Your task to perform on an android device: see tabs open on other devices in the chrome app Image 0: 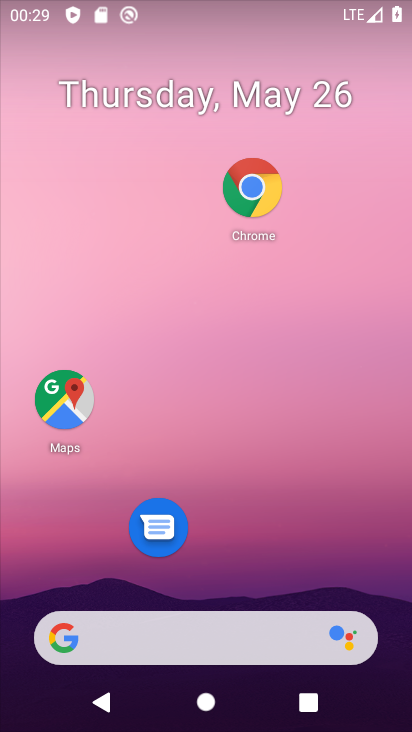
Step 0: click (274, 197)
Your task to perform on an android device: see tabs open on other devices in the chrome app Image 1: 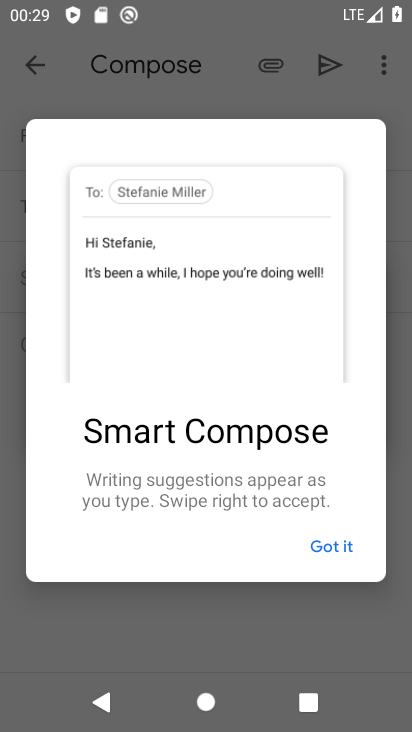
Step 1: click (315, 559)
Your task to perform on an android device: see tabs open on other devices in the chrome app Image 2: 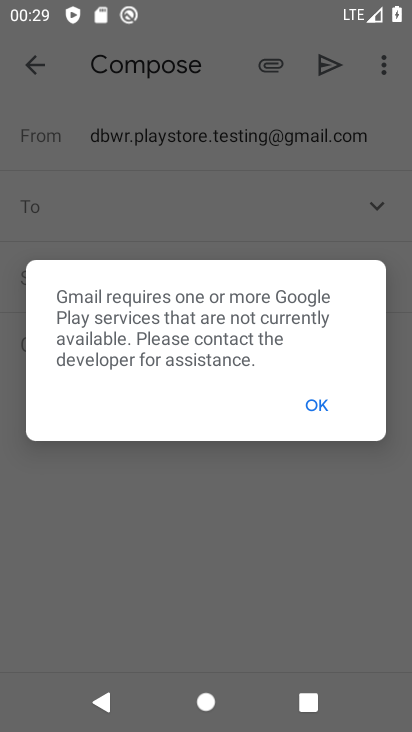
Step 2: click (329, 543)
Your task to perform on an android device: see tabs open on other devices in the chrome app Image 3: 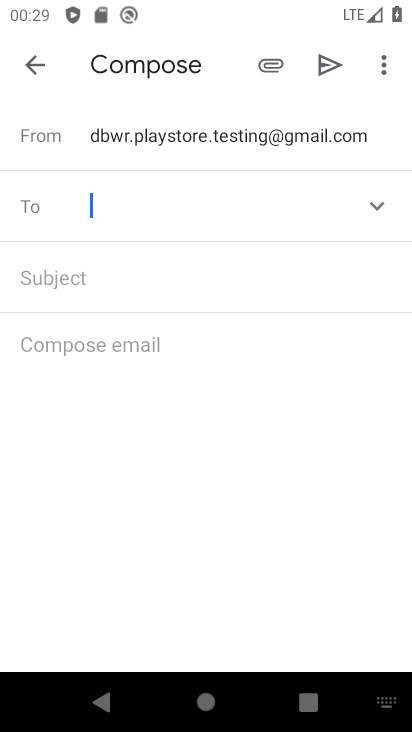
Step 3: press home button
Your task to perform on an android device: see tabs open on other devices in the chrome app Image 4: 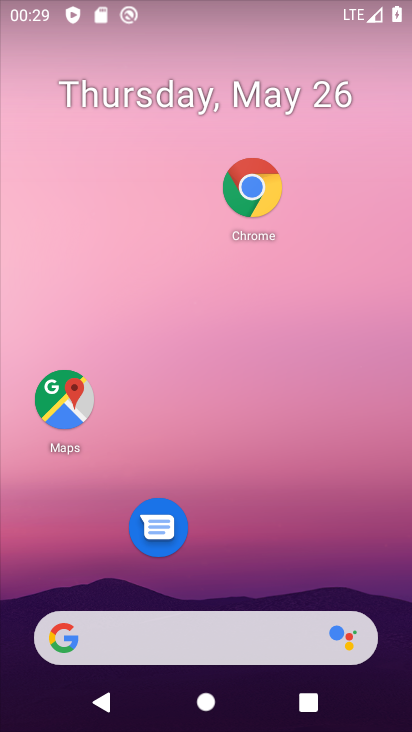
Step 4: click (258, 185)
Your task to perform on an android device: see tabs open on other devices in the chrome app Image 5: 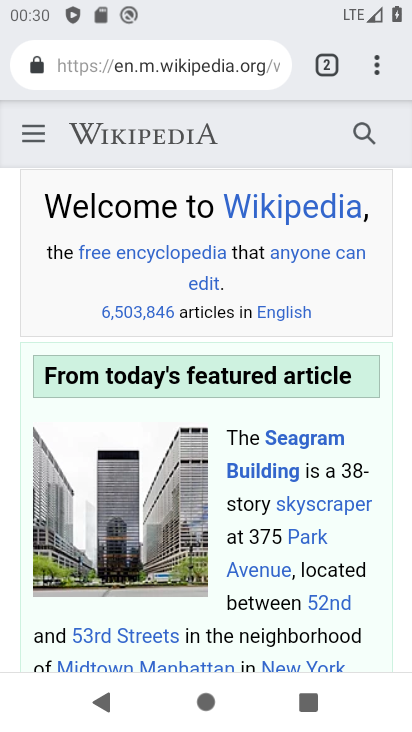
Step 5: click (379, 71)
Your task to perform on an android device: see tabs open on other devices in the chrome app Image 6: 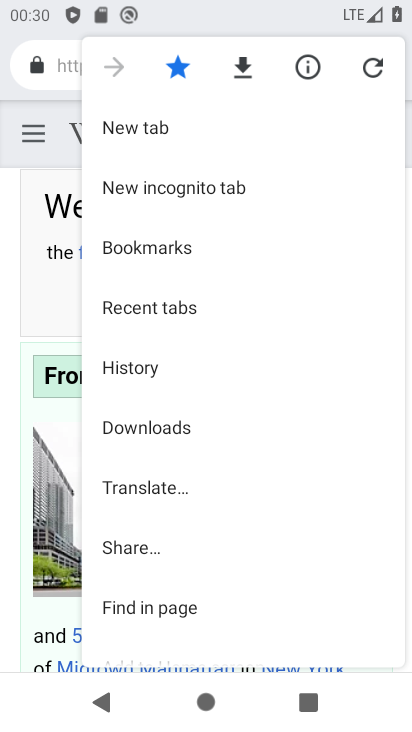
Step 6: click (170, 142)
Your task to perform on an android device: see tabs open on other devices in the chrome app Image 7: 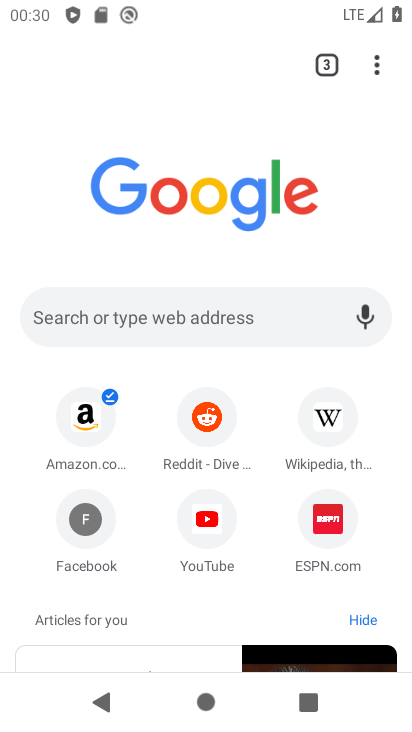
Step 7: drag from (224, 531) to (269, 259)
Your task to perform on an android device: see tabs open on other devices in the chrome app Image 8: 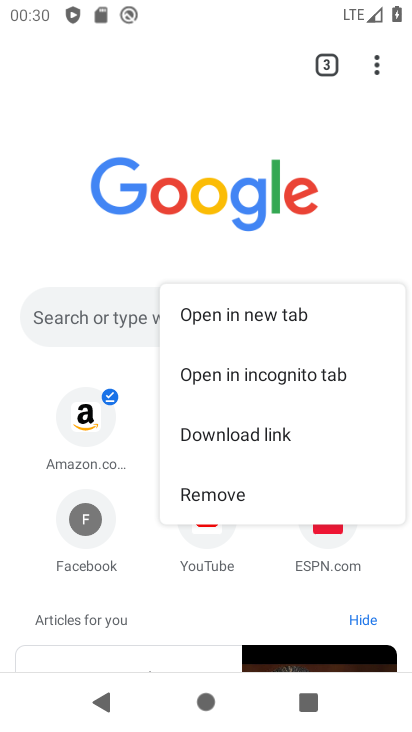
Step 8: click (382, 63)
Your task to perform on an android device: see tabs open on other devices in the chrome app Image 9: 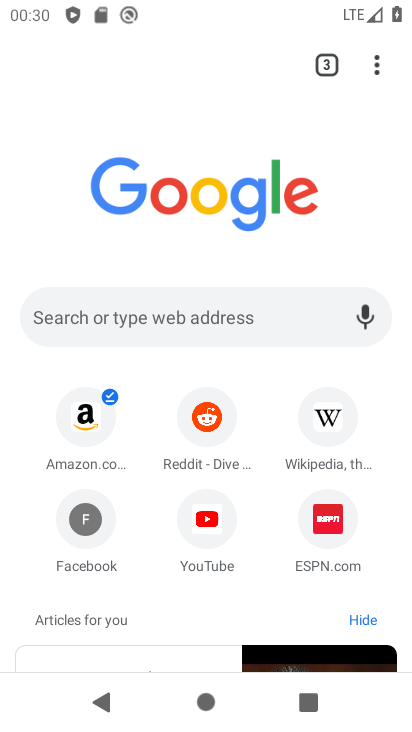
Step 9: click (385, 65)
Your task to perform on an android device: see tabs open on other devices in the chrome app Image 10: 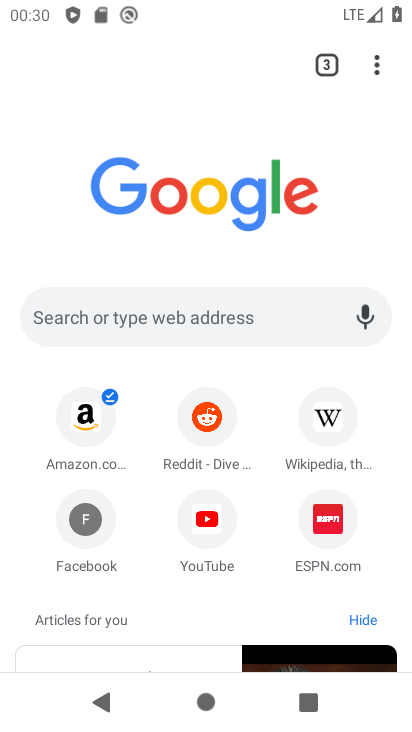
Step 10: click (385, 65)
Your task to perform on an android device: see tabs open on other devices in the chrome app Image 11: 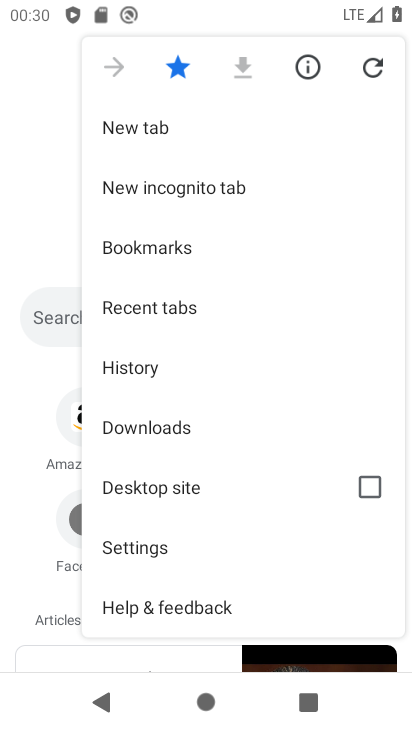
Step 11: click (175, 307)
Your task to perform on an android device: see tabs open on other devices in the chrome app Image 12: 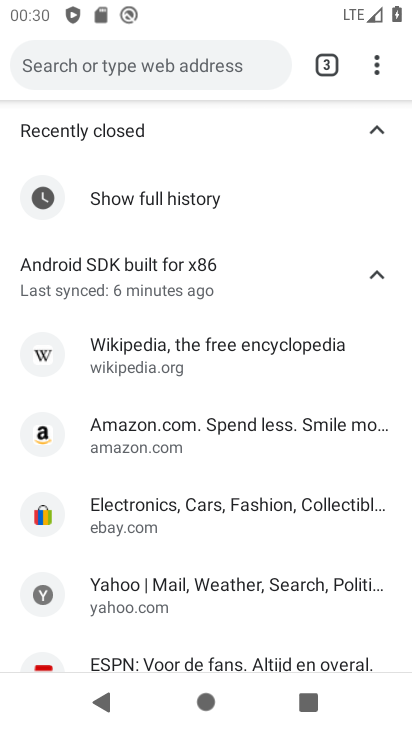
Step 12: task complete